Your task to perform on an android device: What's the latest video from GameXplain? Image 0: 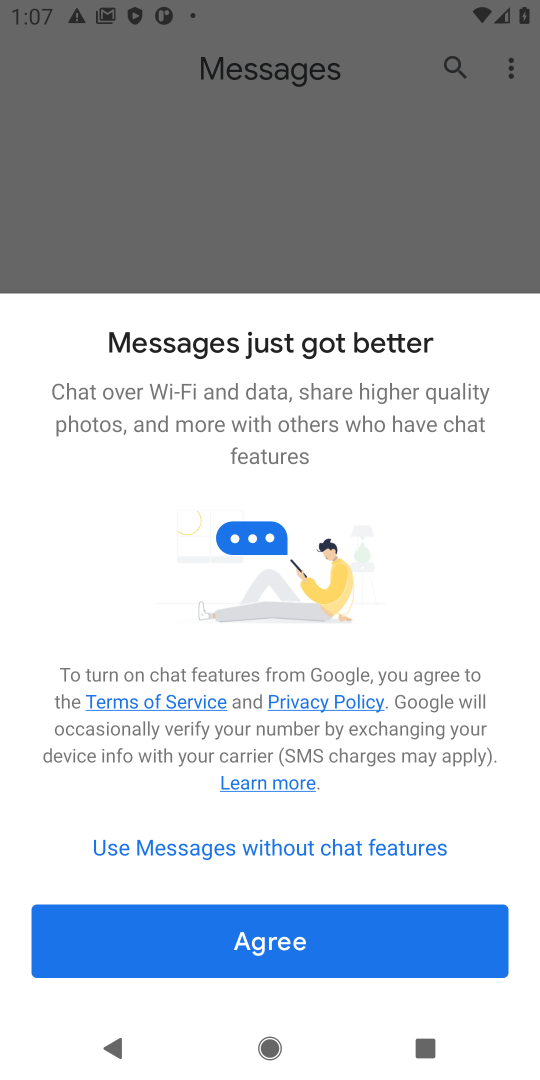
Step 0: click (315, 907)
Your task to perform on an android device: What's the latest video from GameXplain? Image 1: 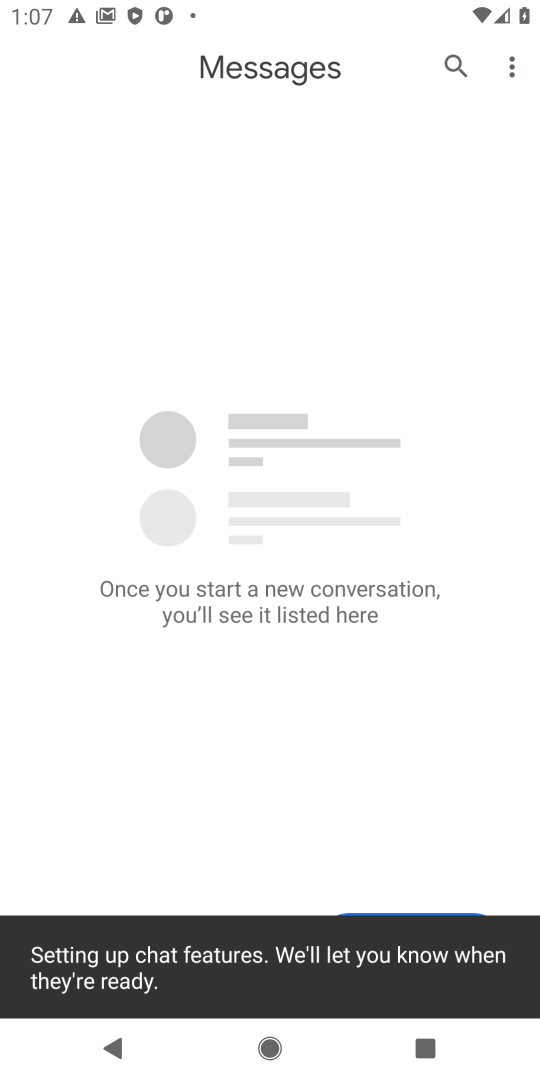
Step 1: press home button
Your task to perform on an android device: What's the latest video from GameXplain? Image 2: 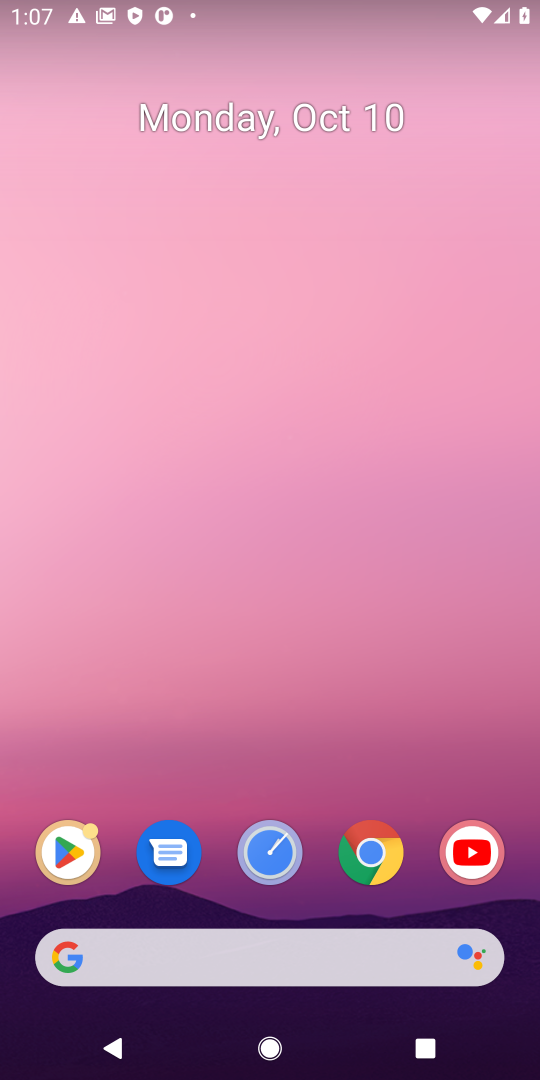
Step 2: click (372, 871)
Your task to perform on an android device: What's the latest video from GameXplain? Image 3: 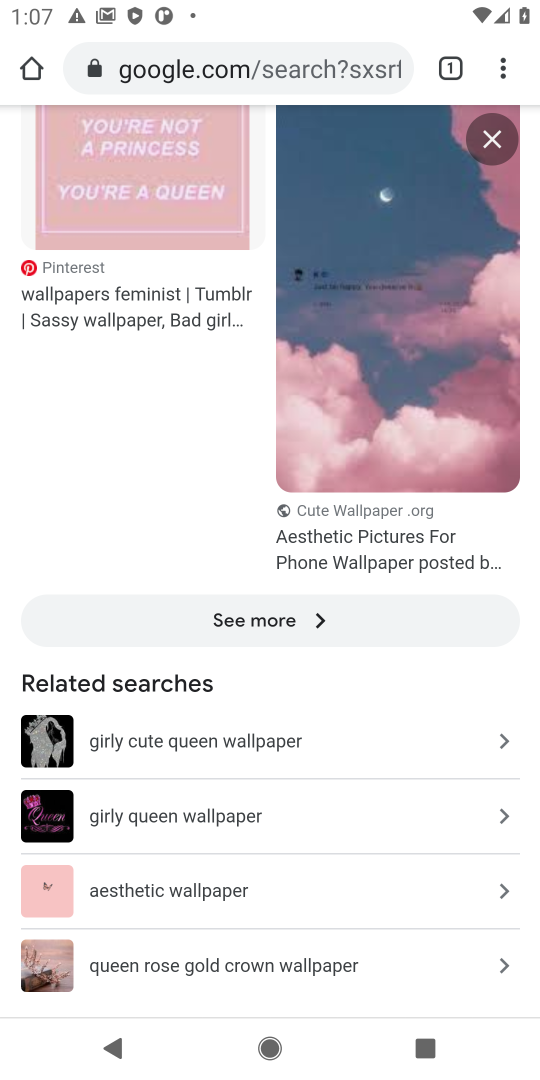
Step 3: click (171, 71)
Your task to perform on an android device: What's the latest video from GameXplain? Image 4: 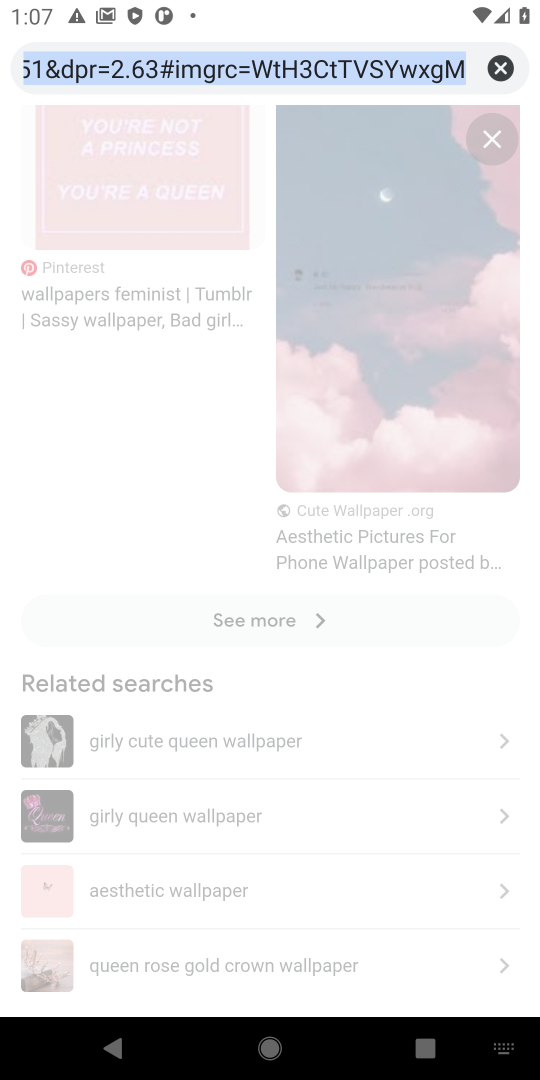
Step 4: click (504, 70)
Your task to perform on an android device: What's the latest video from GameXplain? Image 5: 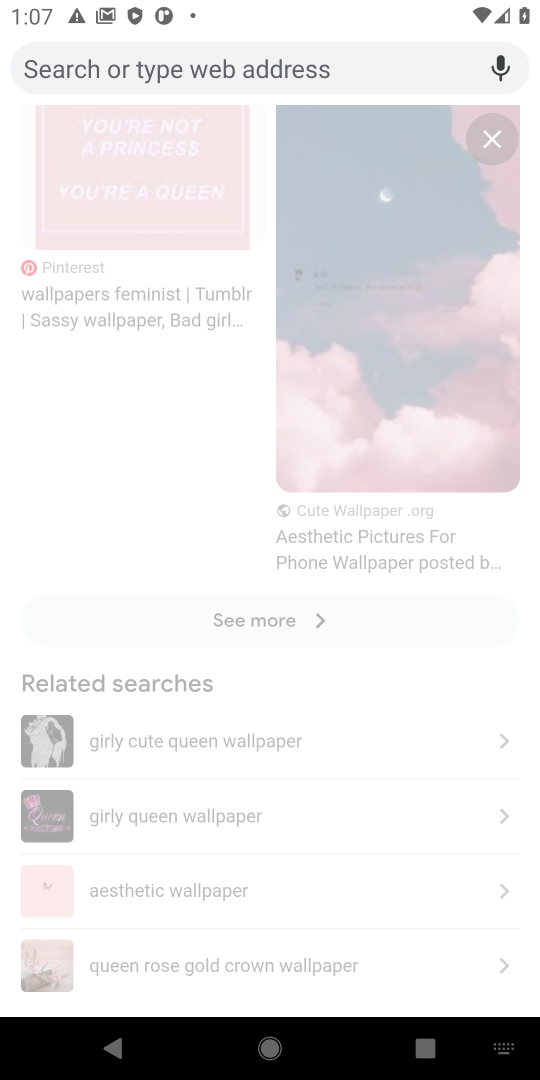
Step 5: type "What's the latest video from GameXplain?"
Your task to perform on an android device: What's the latest video from GameXplain? Image 6: 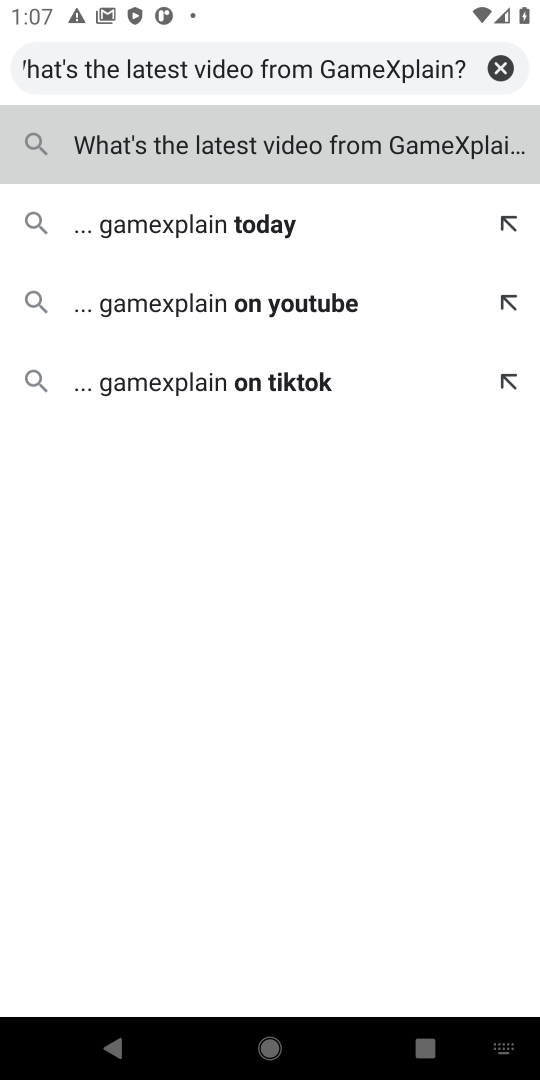
Step 6: type ""
Your task to perform on an android device: What's the latest video from GameXplain? Image 7: 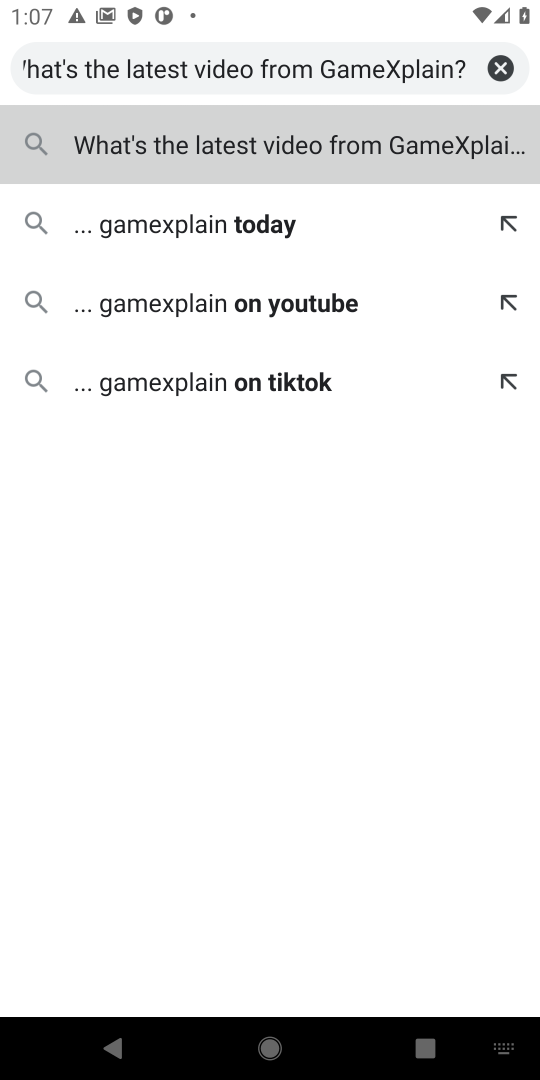
Step 7: click (363, 139)
Your task to perform on an android device: What's the latest video from GameXplain? Image 8: 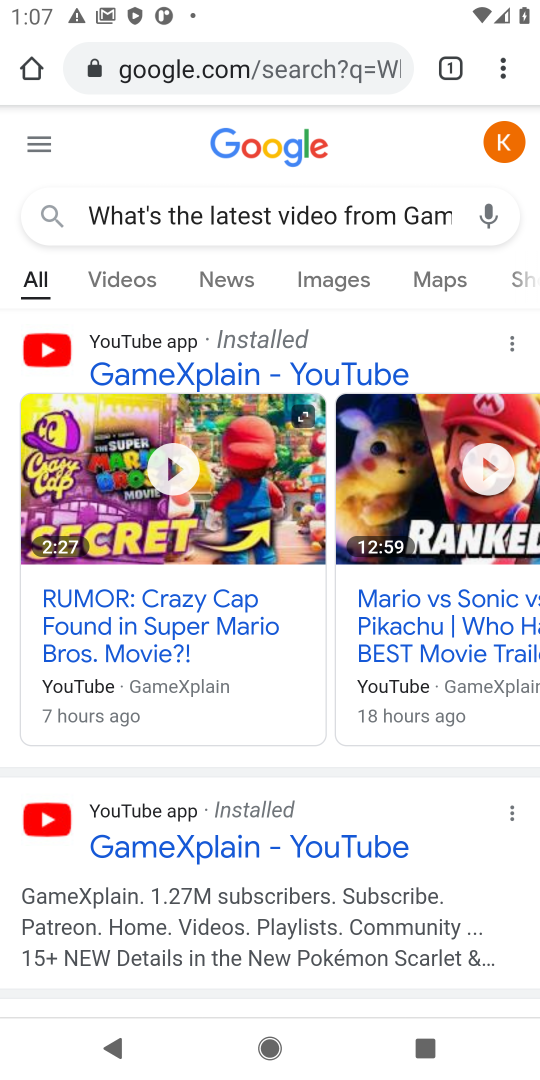
Step 8: click (220, 837)
Your task to perform on an android device: What's the latest video from GameXplain? Image 9: 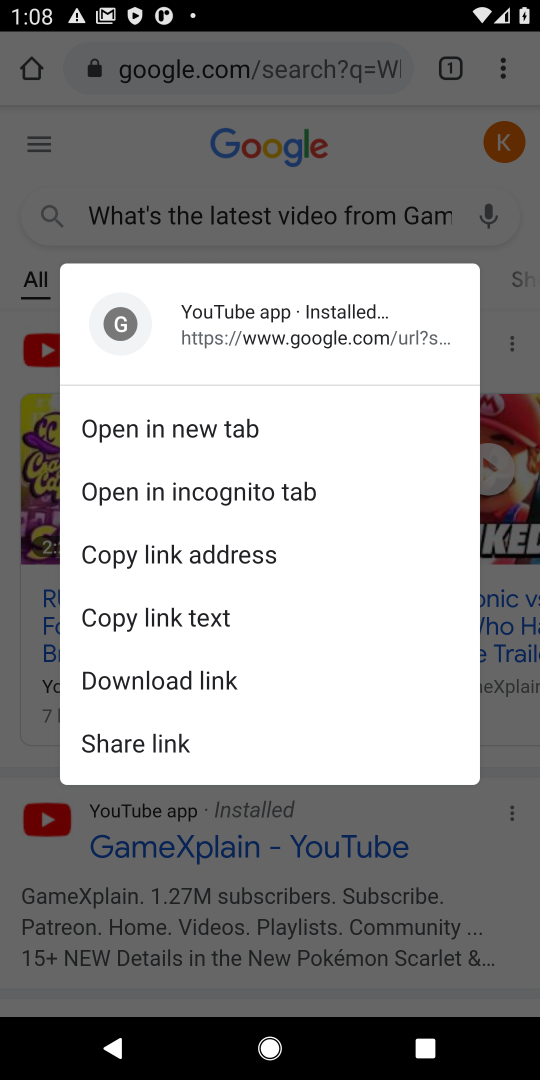
Step 9: click (370, 195)
Your task to perform on an android device: What's the latest video from GameXplain? Image 10: 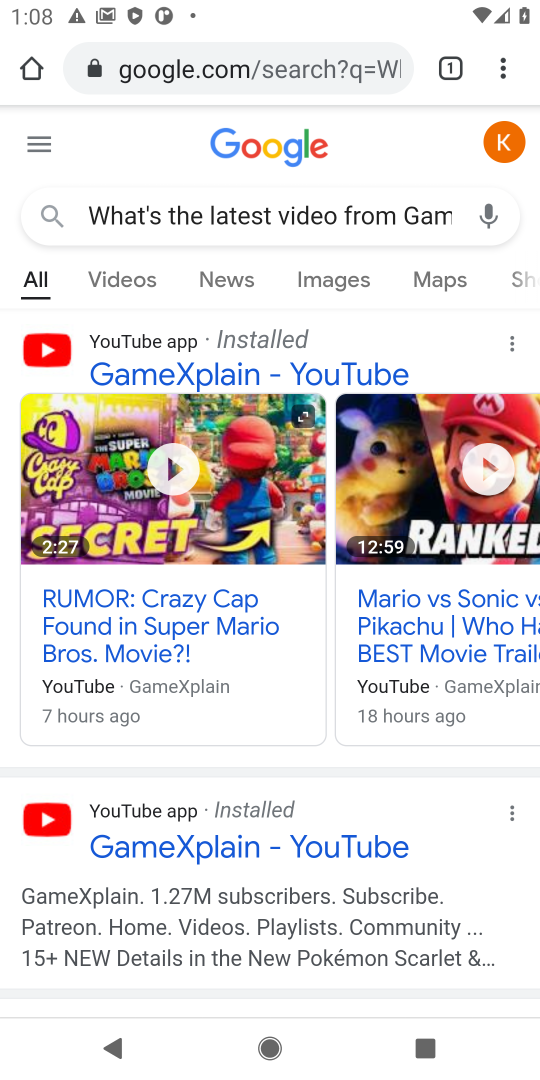
Step 10: click (168, 833)
Your task to perform on an android device: What's the latest video from GameXplain? Image 11: 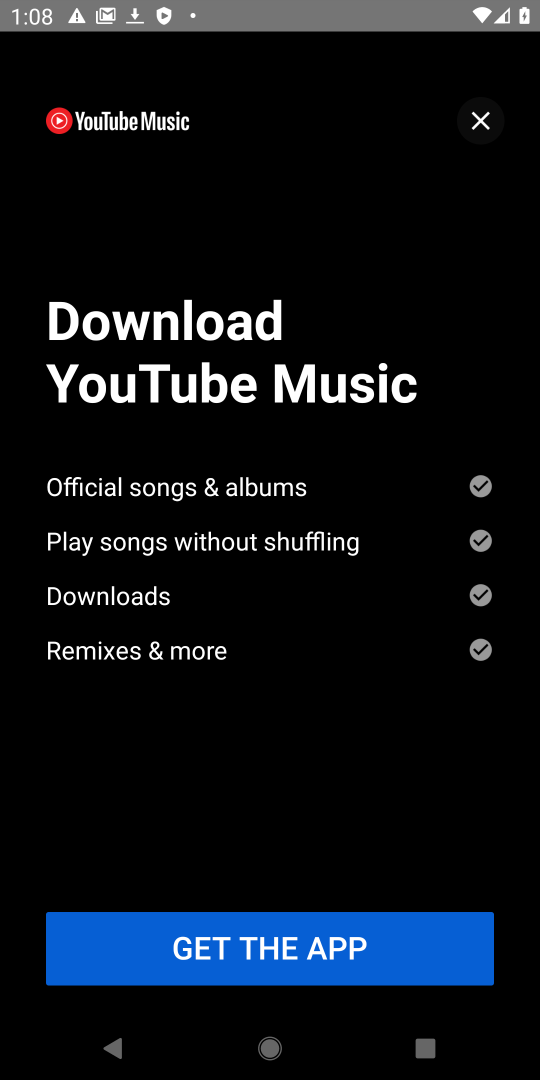
Step 11: click (464, 121)
Your task to perform on an android device: What's the latest video from GameXplain? Image 12: 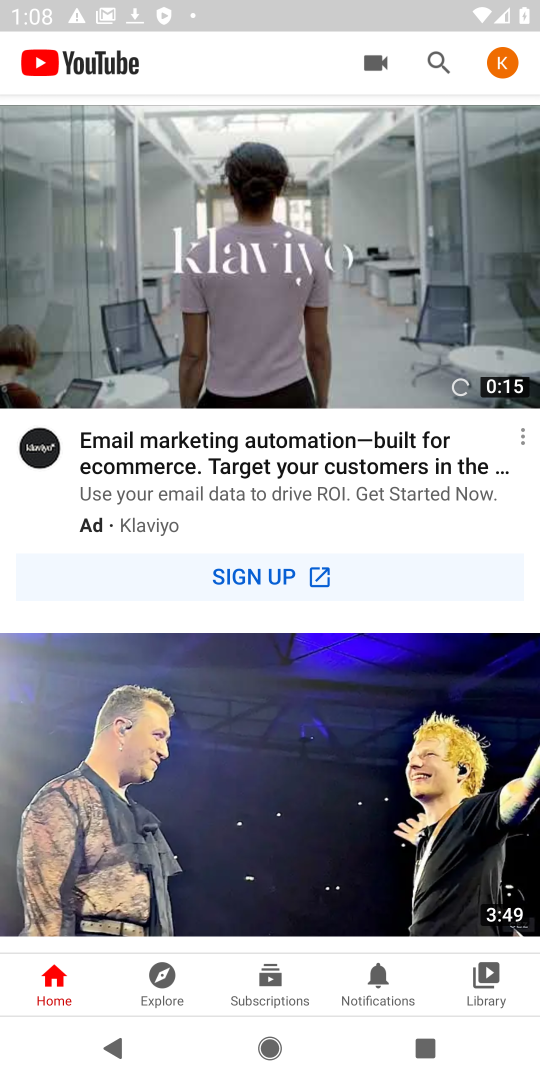
Step 12: drag from (373, 575) to (440, 188)
Your task to perform on an android device: What's the latest video from GameXplain? Image 13: 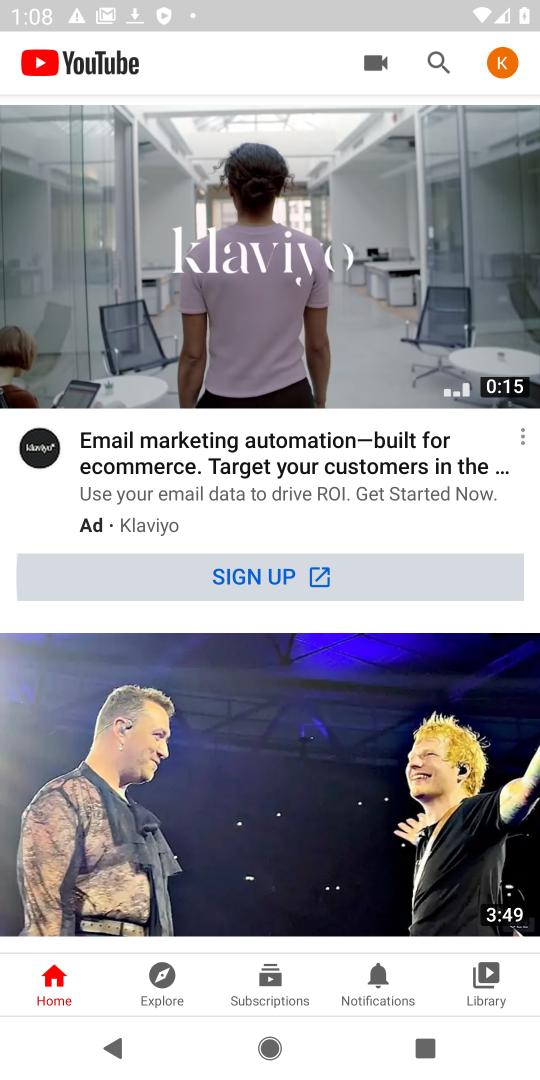
Step 13: drag from (377, 669) to (383, 193)
Your task to perform on an android device: What's the latest video from GameXplain? Image 14: 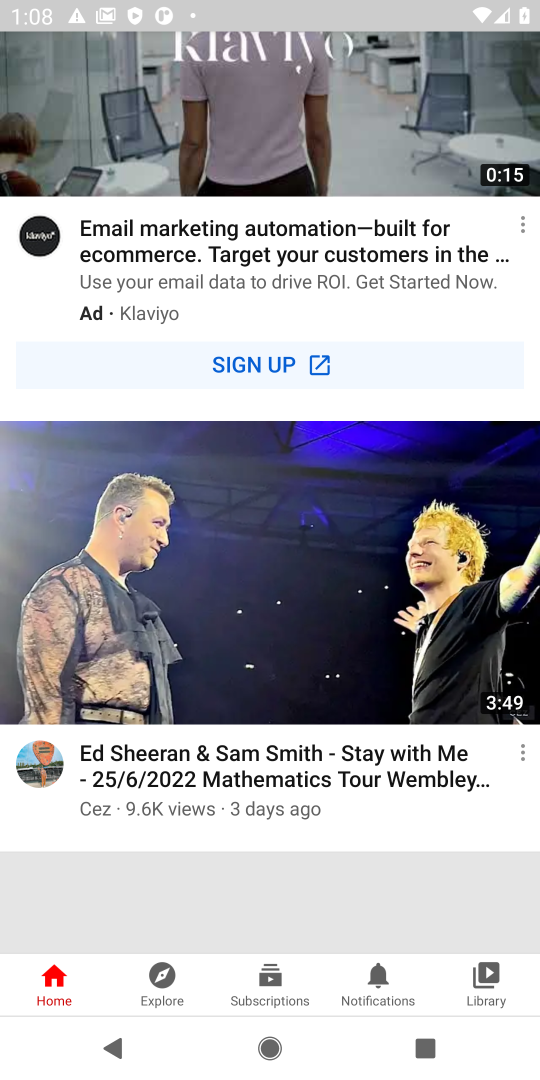
Step 14: drag from (344, 785) to (362, 188)
Your task to perform on an android device: What's the latest video from GameXplain? Image 15: 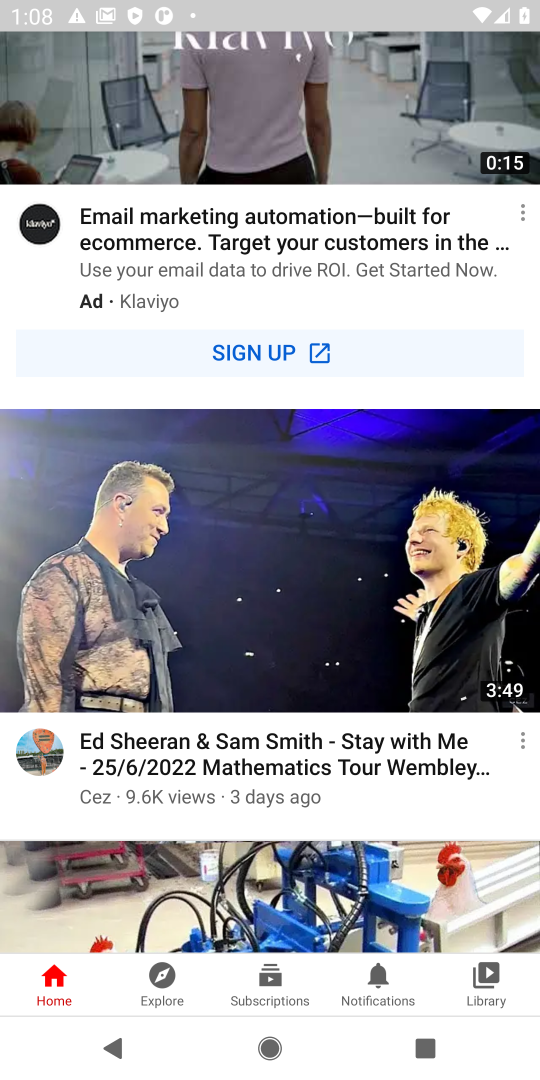
Step 15: drag from (406, 922) to (410, 227)
Your task to perform on an android device: What's the latest video from GameXplain? Image 16: 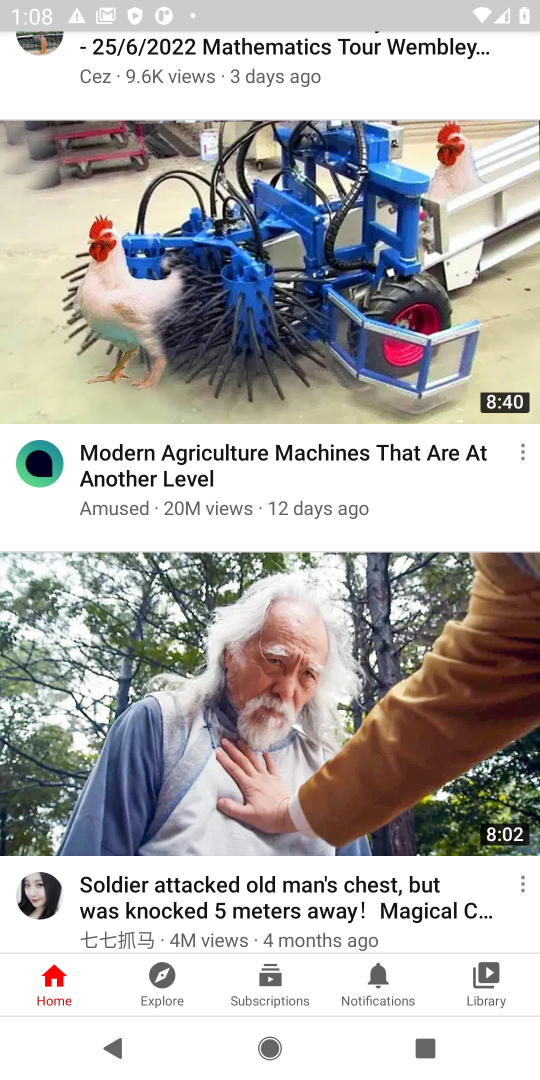
Step 16: drag from (388, 714) to (398, 367)
Your task to perform on an android device: What's the latest video from GameXplain? Image 17: 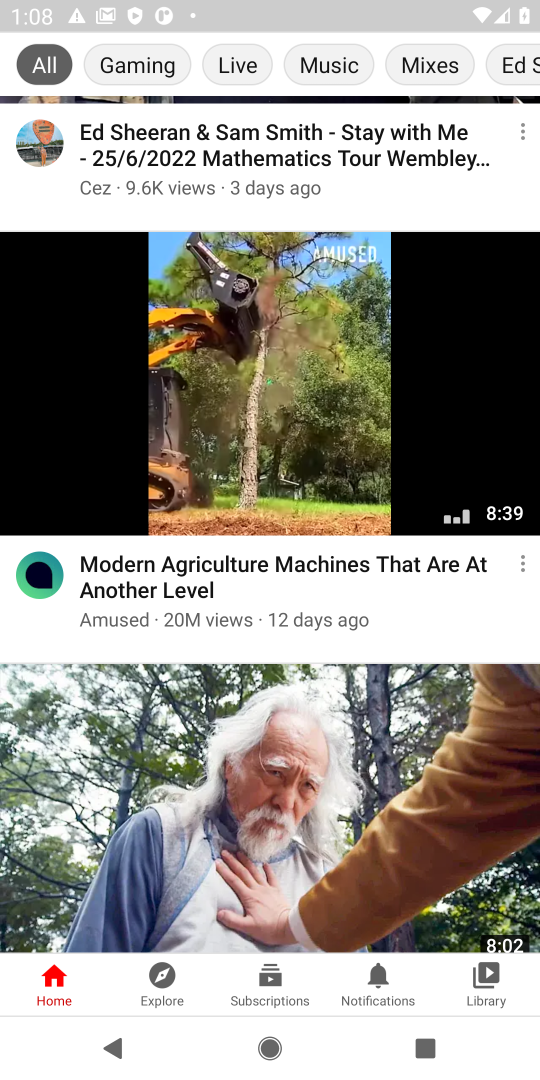
Step 17: drag from (375, 694) to (390, 248)
Your task to perform on an android device: What's the latest video from GameXplain? Image 18: 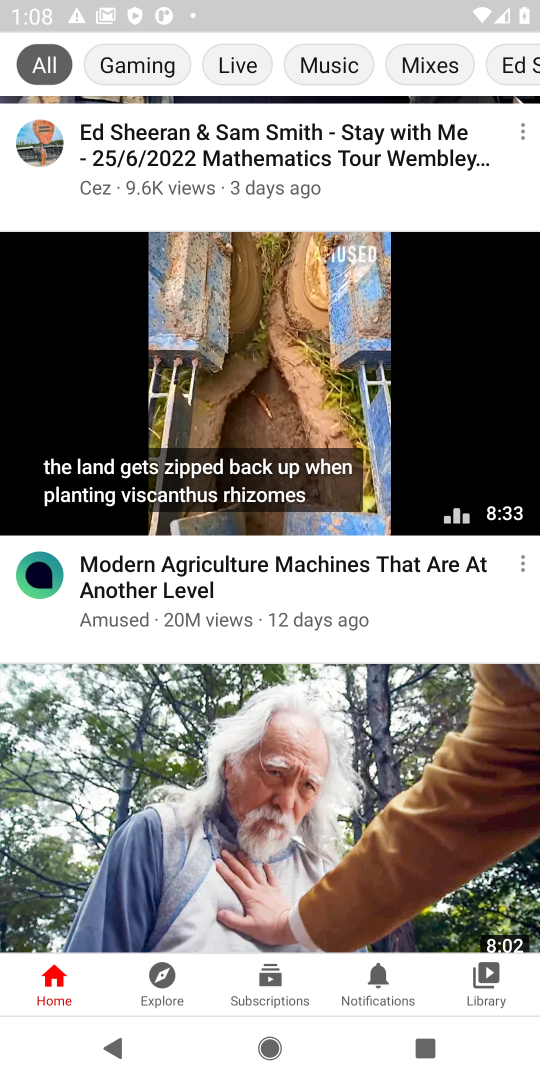
Step 18: drag from (436, 818) to (413, 260)
Your task to perform on an android device: What's the latest video from GameXplain? Image 19: 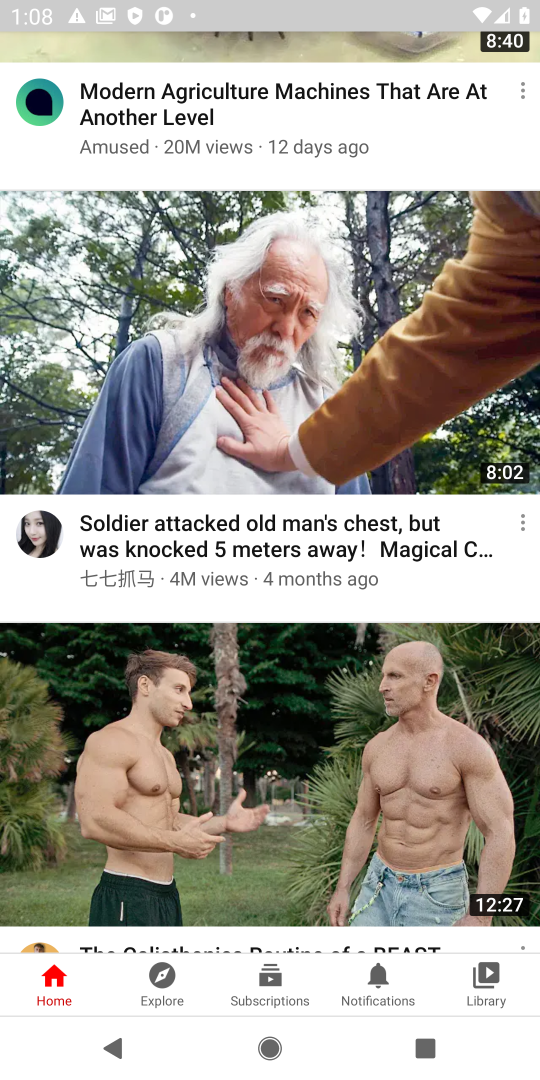
Step 19: drag from (387, 519) to (415, 179)
Your task to perform on an android device: What's the latest video from GameXplain? Image 20: 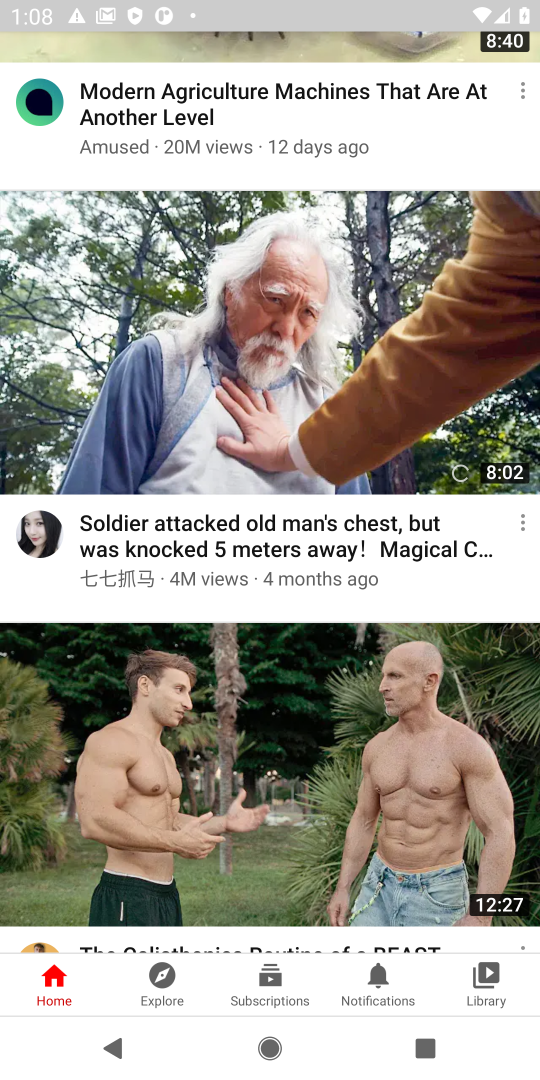
Step 20: click (390, 370)
Your task to perform on an android device: What's the latest video from GameXplain? Image 21: 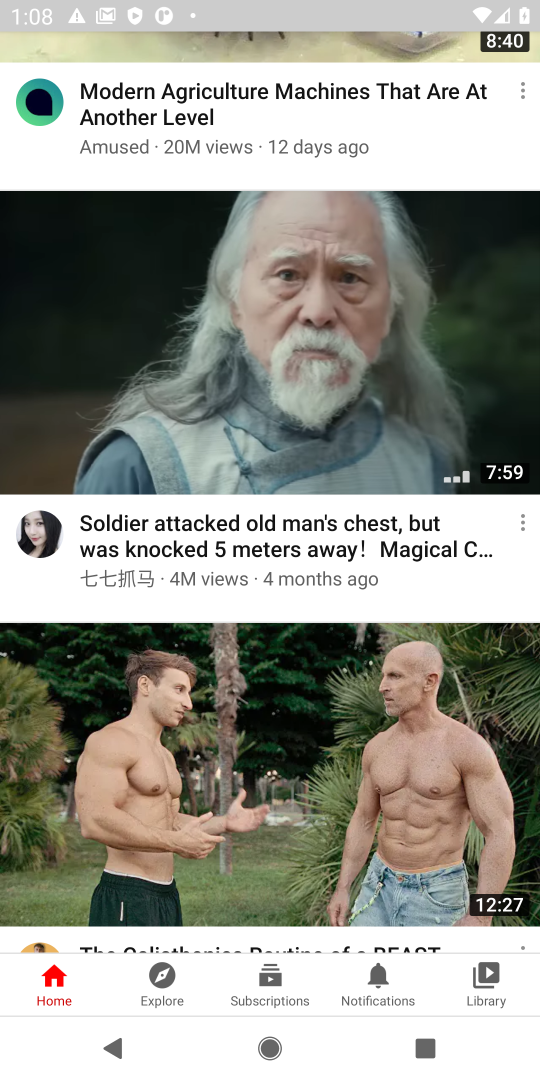
Step 21: drag from (376, 413) to (355, 721)
Your task to perform on an android device: What's the latest video from GameXplain? Image 22: 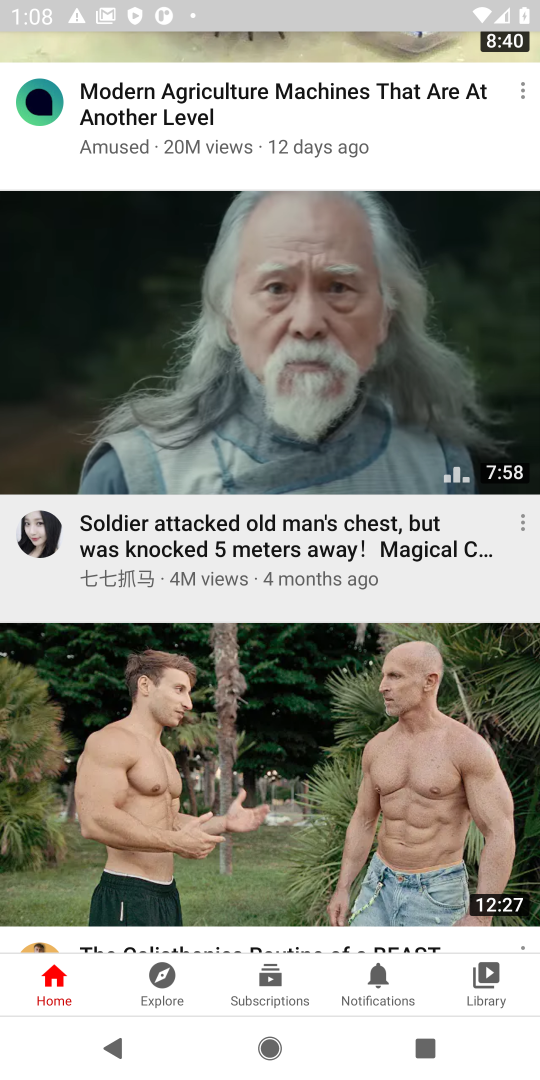
Step 22: drag from (316, 474) to (349, 820)
Your task to perform on an android device: What's the latest video from GameXplain? Image 23: 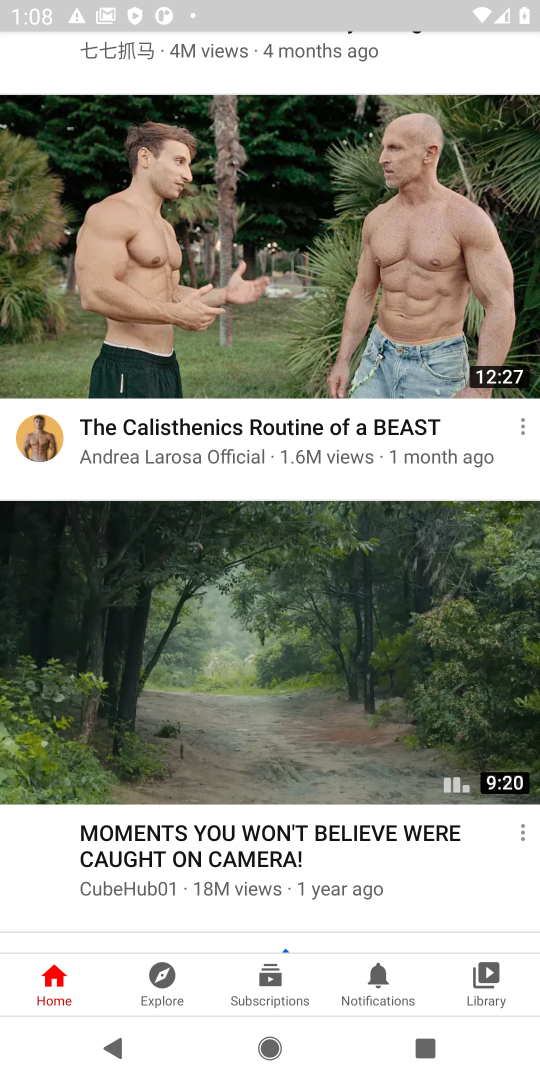
Step 23: click (303, 516)
Your task to perform on an android device: What's the latest video from GameXplain? Image 24: 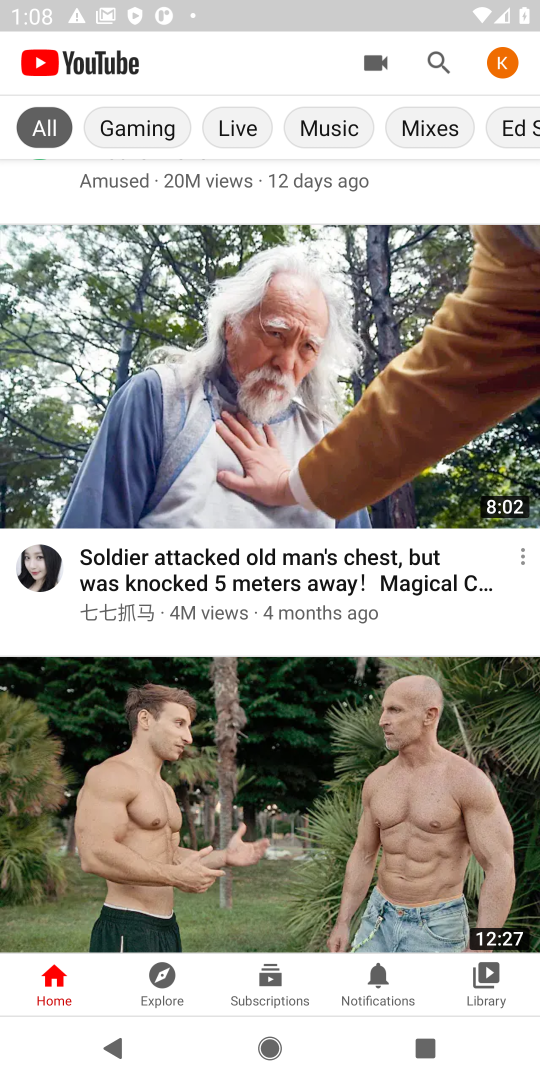
Step 24: click (441, 59)
Your task to perform on an android device: What's the latest video from GameXplain? Image 25: 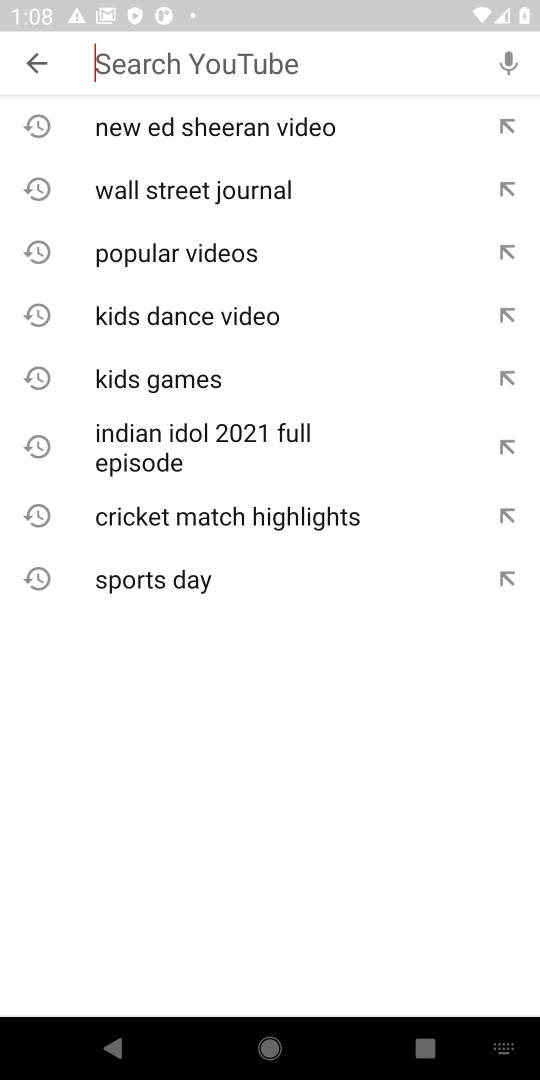
Step 25: press back button
Your task to perform on an android device: What's the latest video from GameXplain? Image 26: 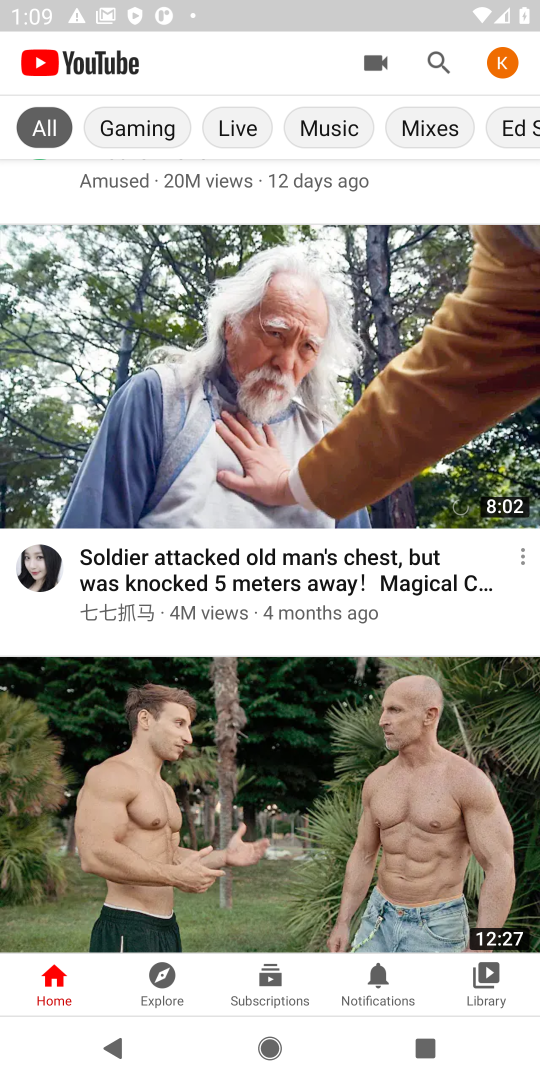
Step 26: drag from (302, 638) to (274, 979)
Your task to perform on an android device: What's the latest video from GameXplain? Image 27: 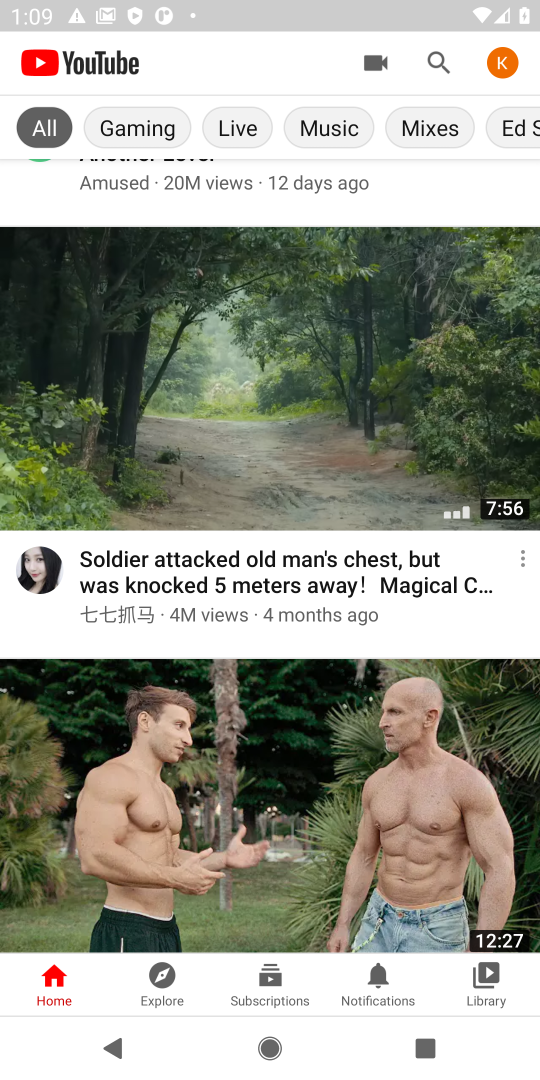
Step 27: drag from (281, 346) to (294, 949)
Your task to perform on an android device: What's the latest video from GameXplain? Image 28: 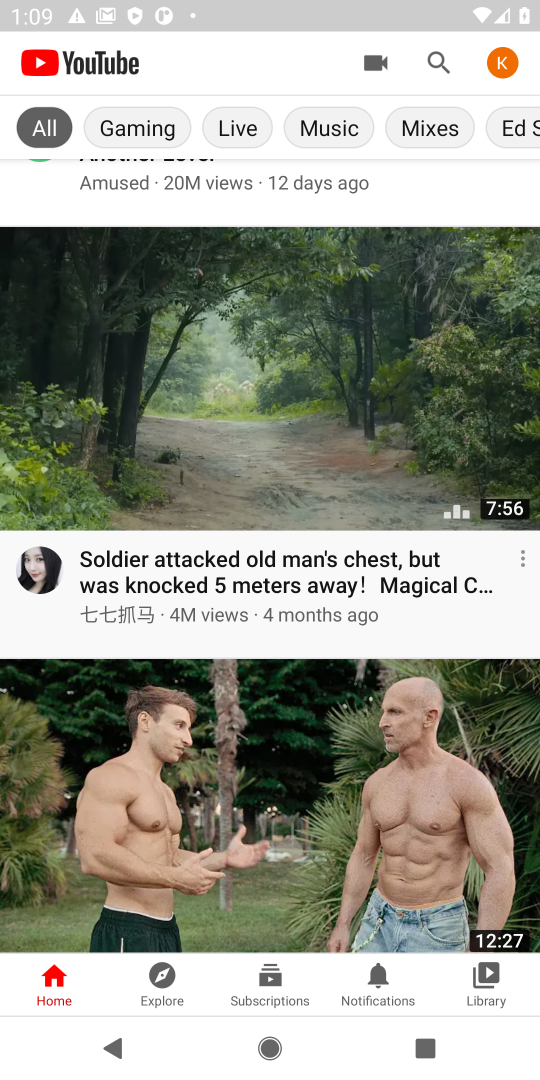
Step 28: drag from (331, 695) to (324, 840)
Your task to perform on an android device: What's the latest video from GameXplain? Image 29: 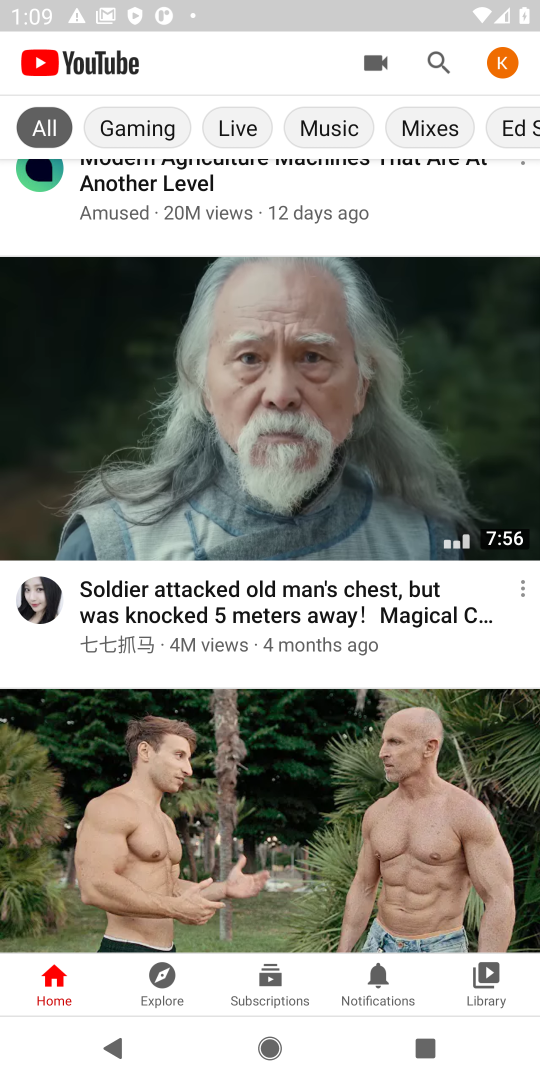
Step 29: drag from (344, 439) to (379, 901)
Your task to perform on an android device: What's the latest video from GameXplain? Image 30: 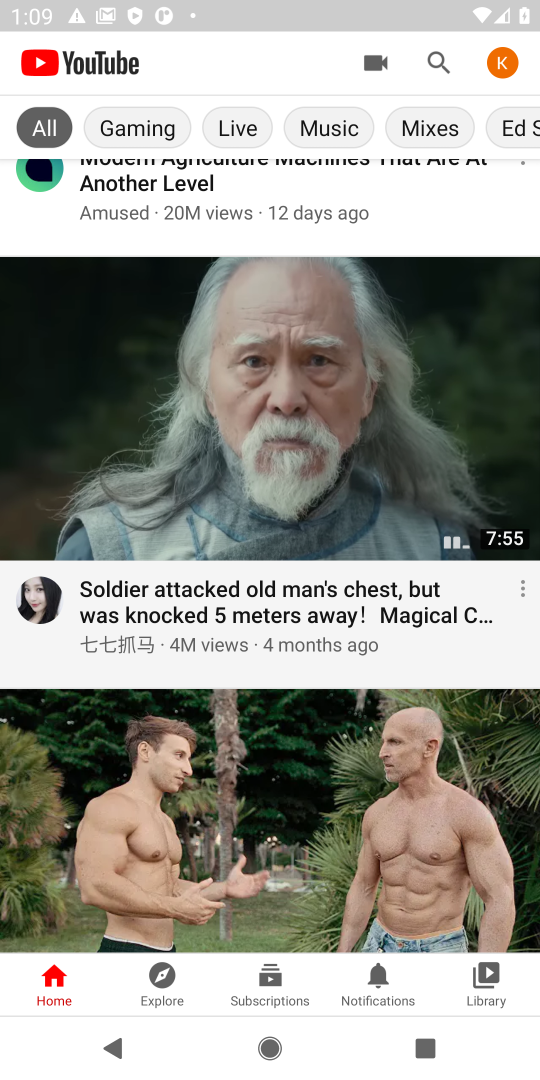
Step 30: drag from (402, 654) to (428, 858)
Your task to perform on an android device: What's the latest video from GameXplain? Image 31: 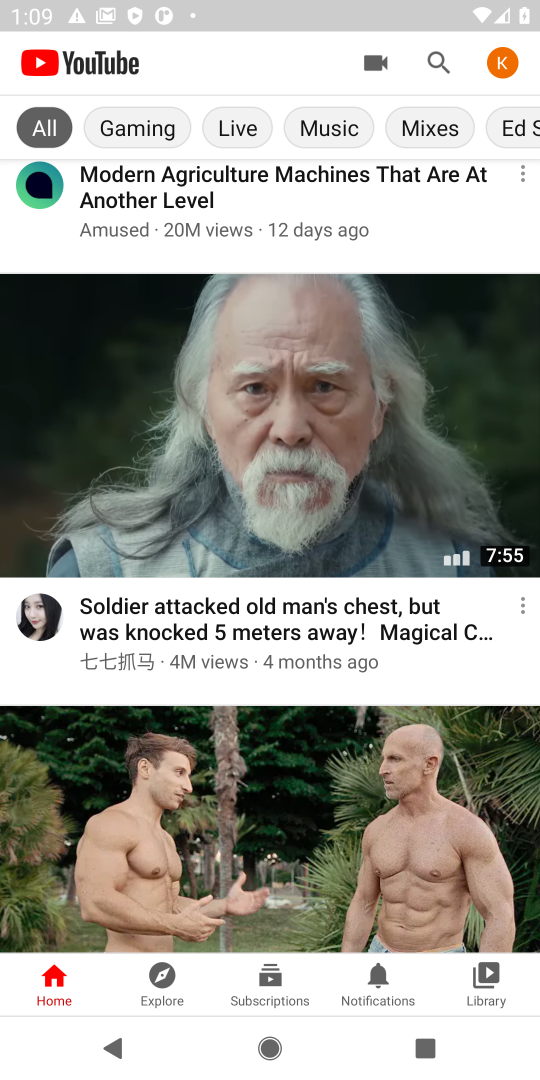
Step 31: press back button
Your task to perform on an android device: What's the latest video from GameXplain? Image 32: 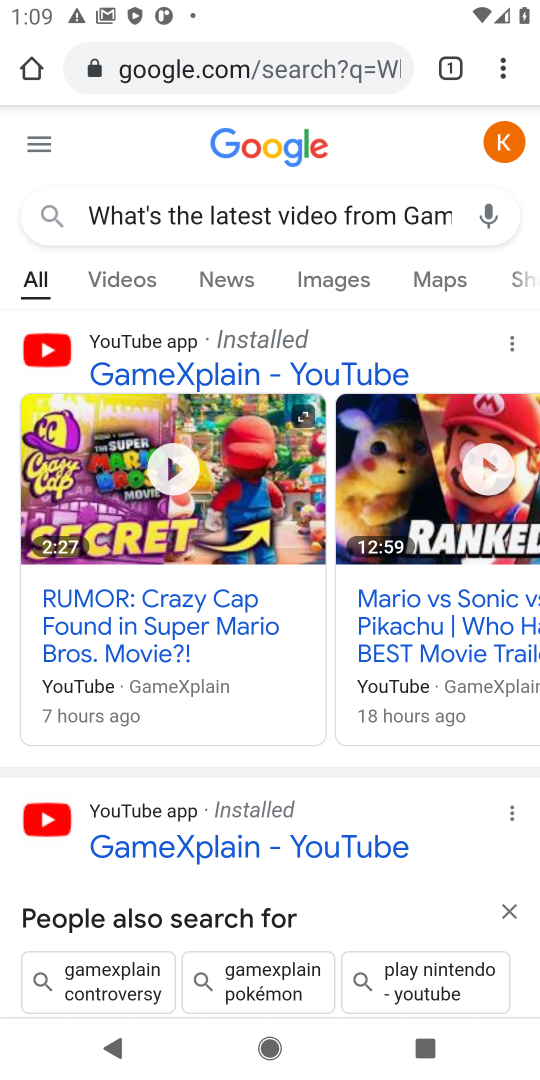
Step 32: click (244, 851)
Your task to perform on an android device: What's the latest video from GameXplain? Image 33: 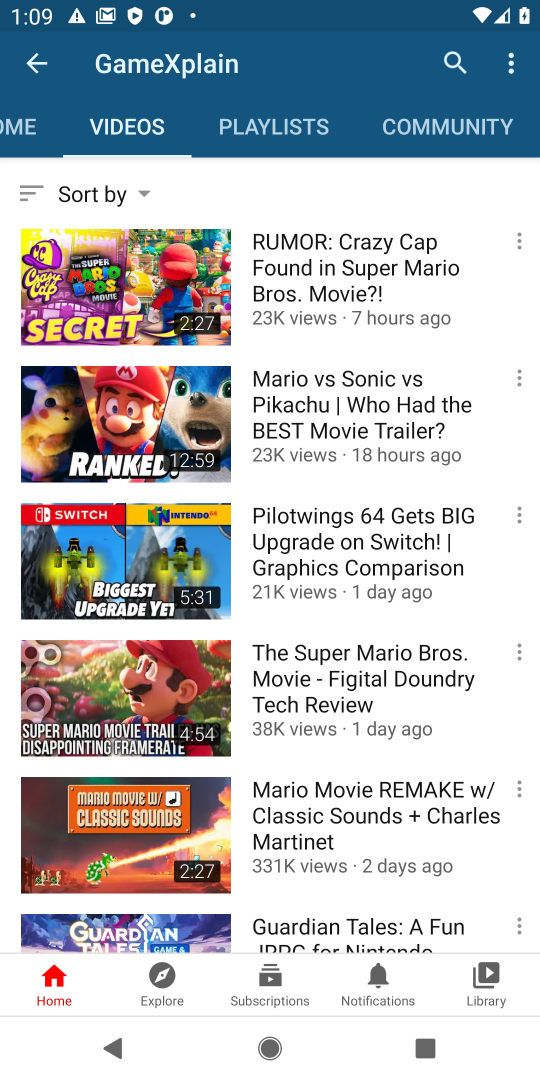
Step 33: click (389, 263)
Your task to perform on an android device: What's the latest video from GameXplain? Image 34: 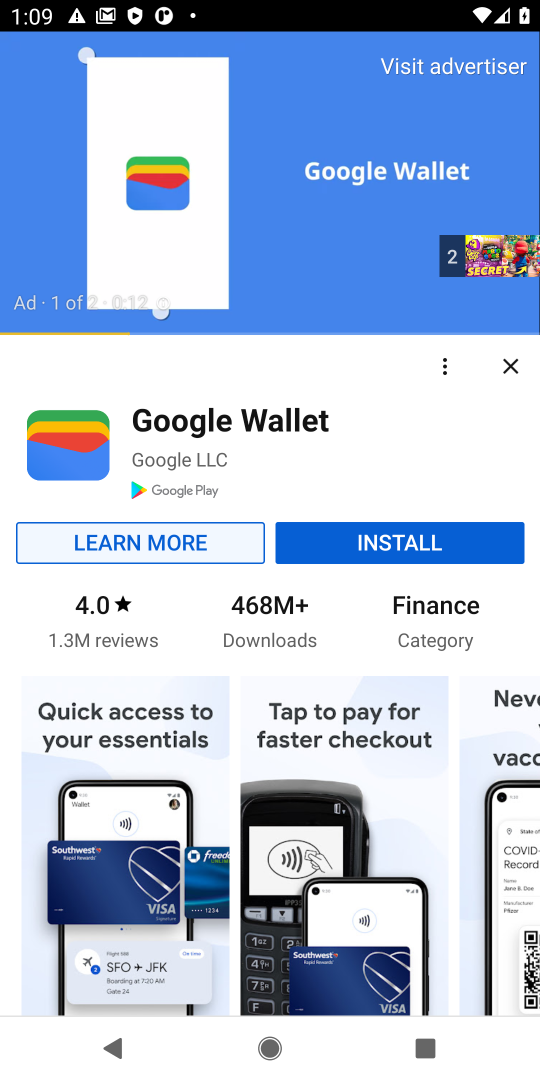
Step 34: click (511, 356)
Your task to perform on an android device: What's the latest video from GameXplain? Image 35: 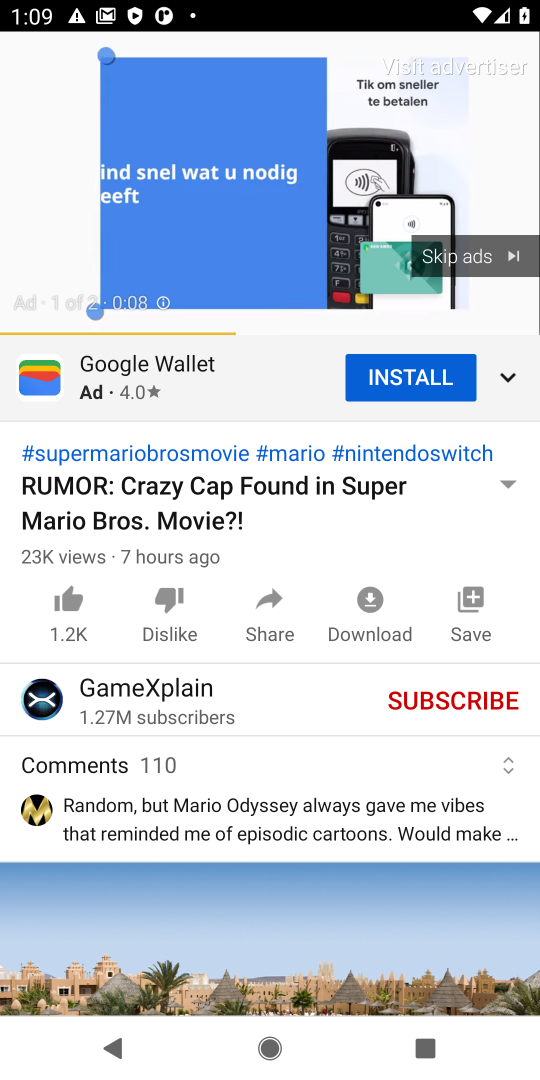
Step 35: click (510, 262)
Your task to perform on an android device: What's the latest video from GameXplain? Image 36: 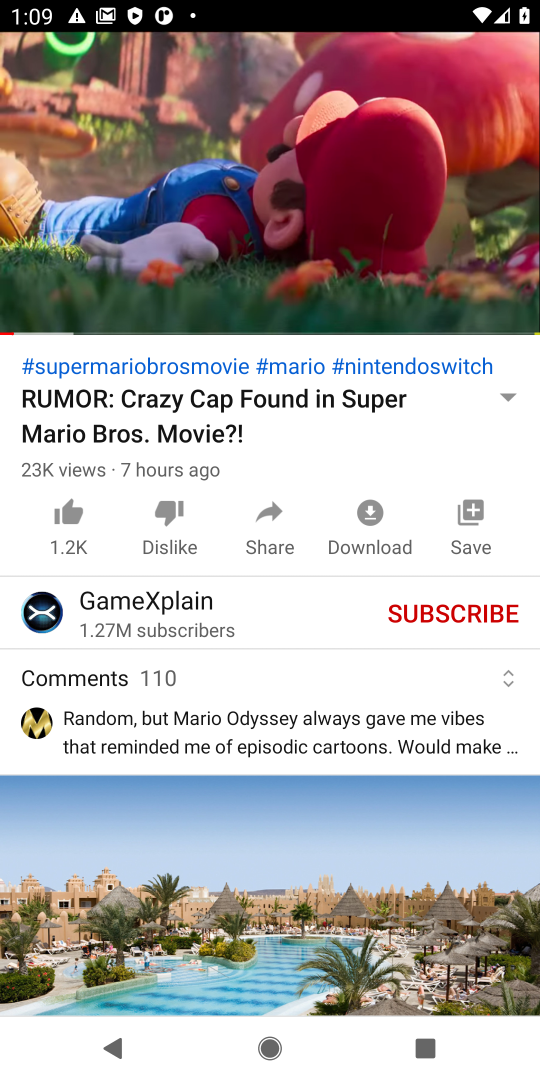
Step 36: task complete